Your task to perform on an android device: allow cookies in the chrome app Image 0: 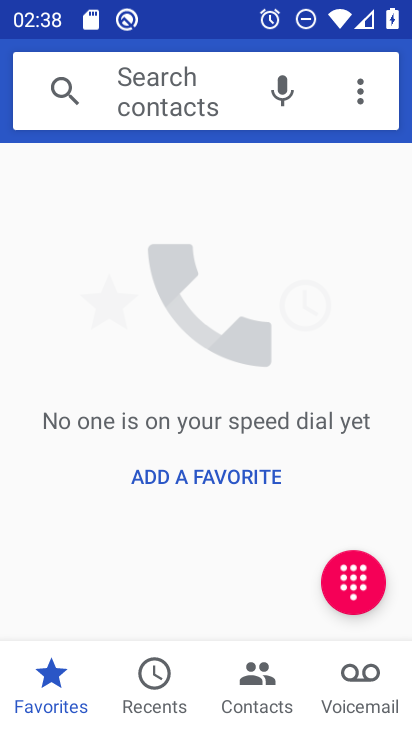
Step 0: press home button
Your task to perform on an android device: allow cookies in the chrome app Image 1: 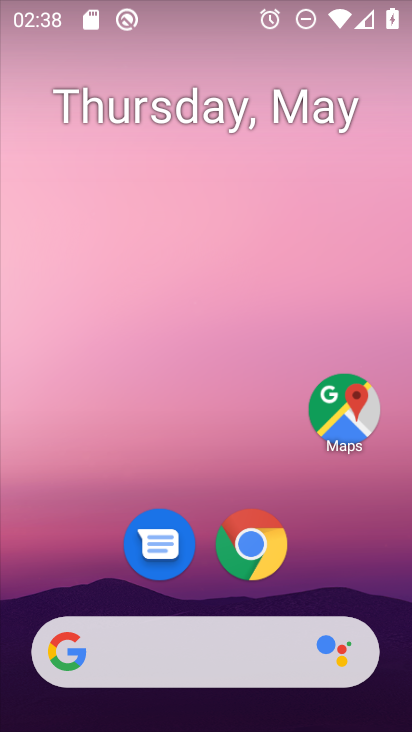
Step 1: drag from (394, 557) to (370, 130)
Your task to perform on an android device: allow cookies in the chrome app Image 2: 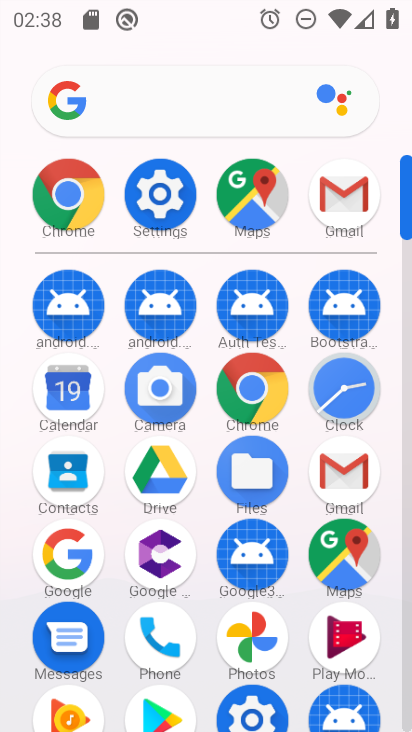
Step 2: click (269, 397)
Your task to perform on an android device: allow cookies in the chrome app Image 3: 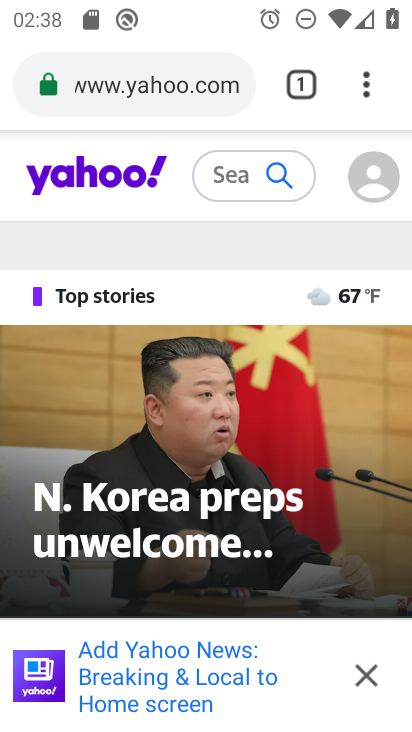
Step 3: click (366, 100)
Your task to perform on an android device: allow cookies in the chrome app Image 4: 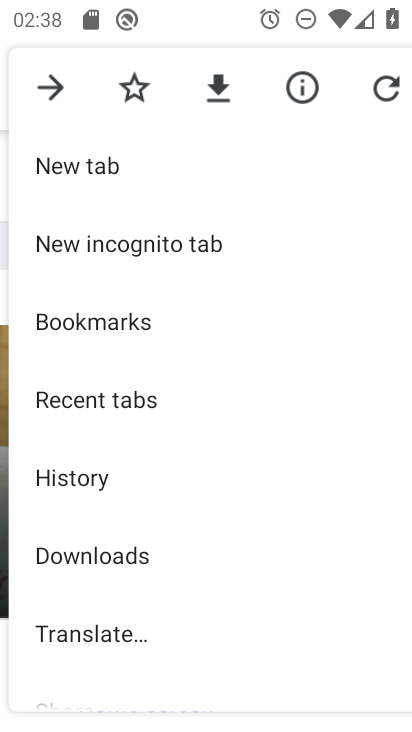
Step 4: drag from (294, 526) to (315, 390)
Your task to perform on an android device: allow cookies in the chrome app Image 5: 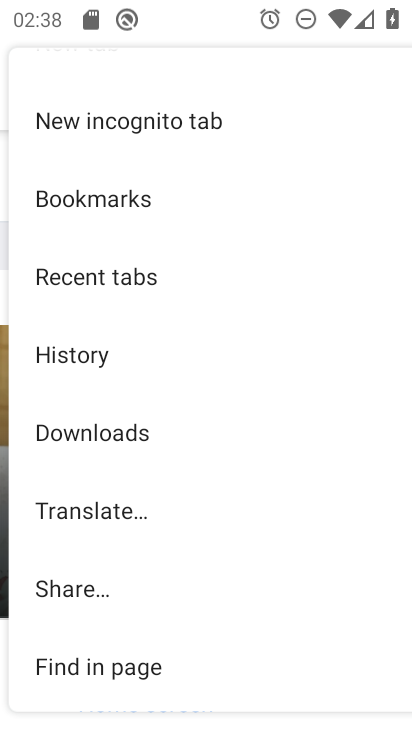
Step 5: drag from (314, 570) to (336, 469)
Your task to perform on an android device: allow cookies in the chrome app Image 6: 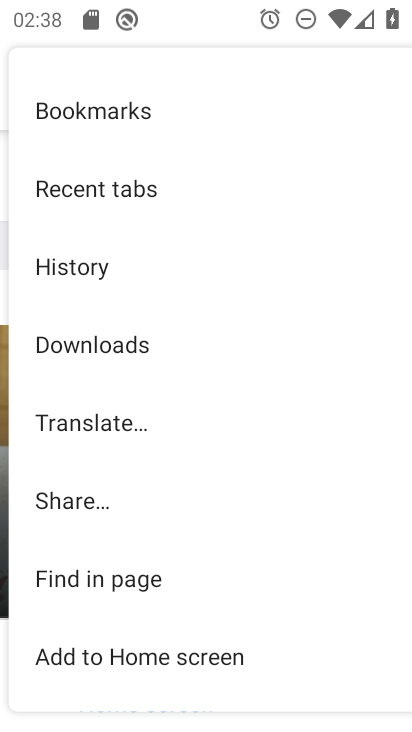
Step 6: drag from (326, 587) to (329, 500)
Your task to perform on an android device: allow cookies in the chrome app Image 7: 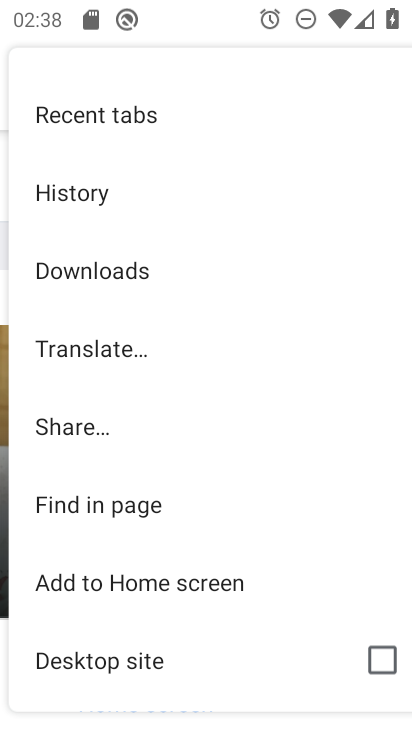
Step 7: drag from (318, 600) to (330, 517)
Your task to perform on an android device: allow cookies in the chrome app Image 8: 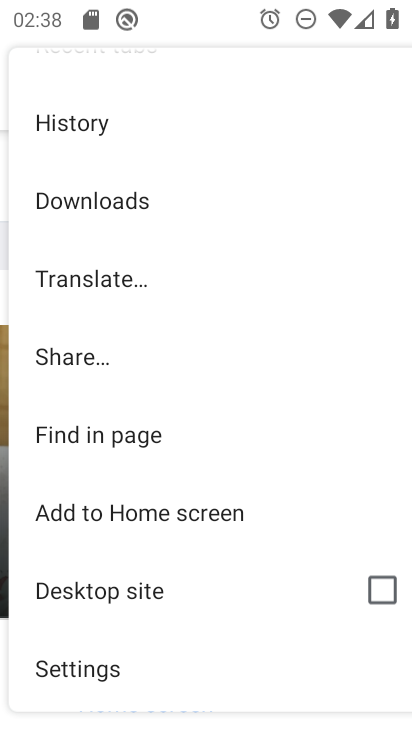
Step 8: drag from (326, 601) to (335, 521)
Your task to perform on an android device: allow cookies in the chrome app Image 9: 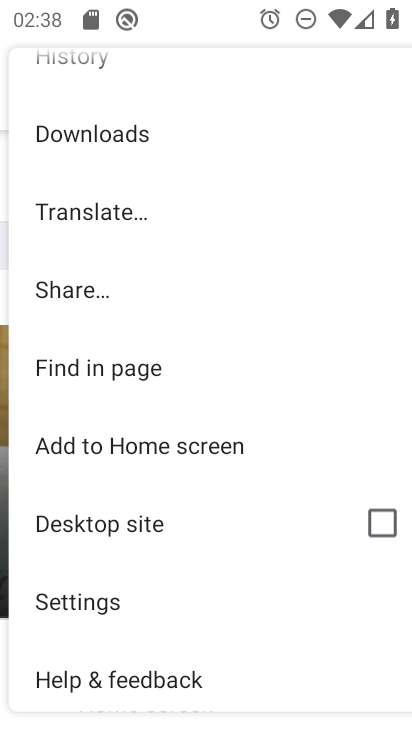
Step 9: drag from (333, 578) to (336, 534)
Your task to perform on an android device: allow cookies in the chrome app Image 10: 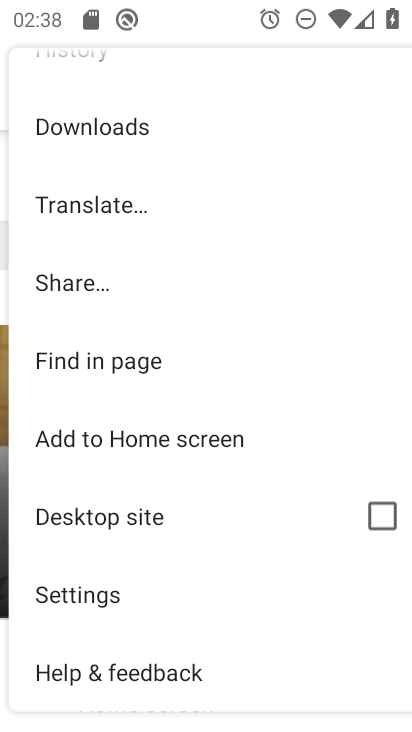
Step 10: drag from (334, 570) to (339, 502)
Your task to perform on an android device: allow cookies in the chrome app Image 11: 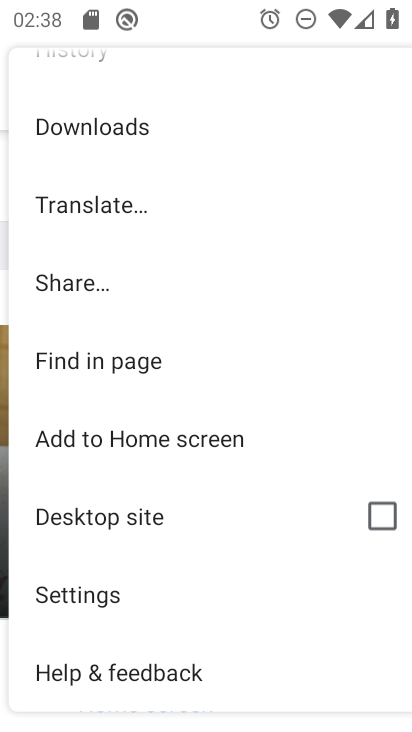
Step 11: drag from (338, 574) to (355, 539)
Your task to perform on an android device: allow cookies in the chrome app Image 12: 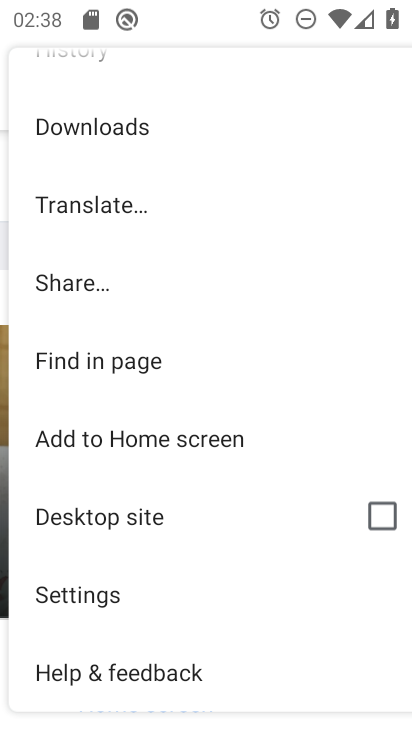
Step 12: drag from (314, 373) to (316, 449)
Your task to perform on an android device: allow cookies in the chrome app Image 13: 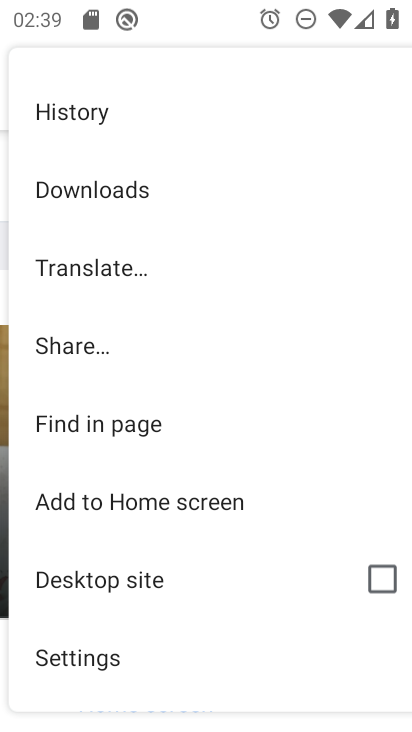
Step 13: click (320, 445)
Your task to perform on an android device: allow cookies in the chrome app Image 14: 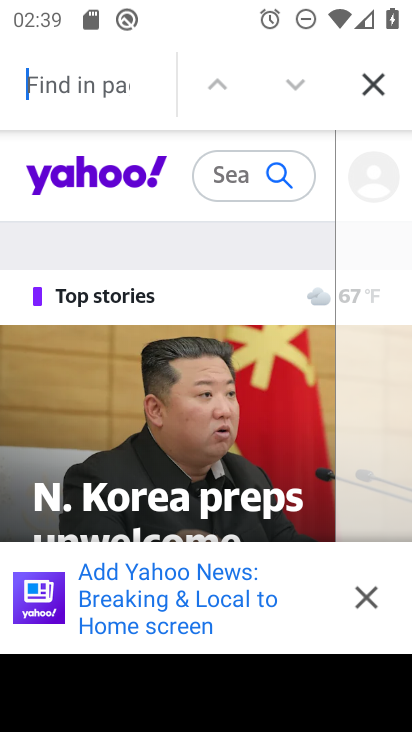
Step 14: click (360, 98)
Your task to perform on an android device: allow cookies in the chrome app Image 15: 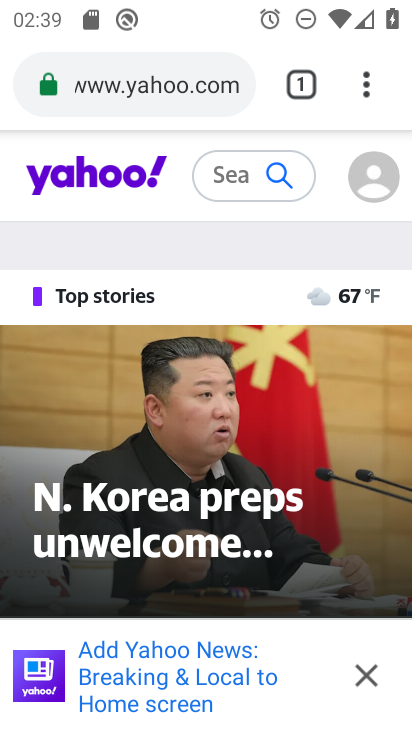
Step 15: click (370, 94)
Your task to perform on an android device: allow cookies in the chrome app Image 16: 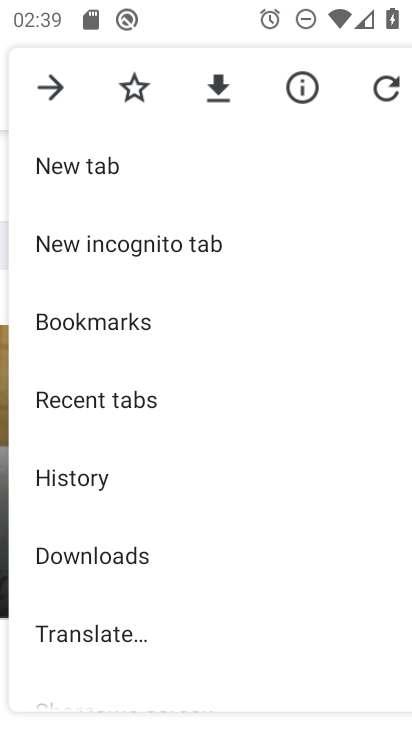
Step 16: drag from (315, 560) to (319, 437)
Your task to perform on an android device: allow cookies in the chrome app Image 17: 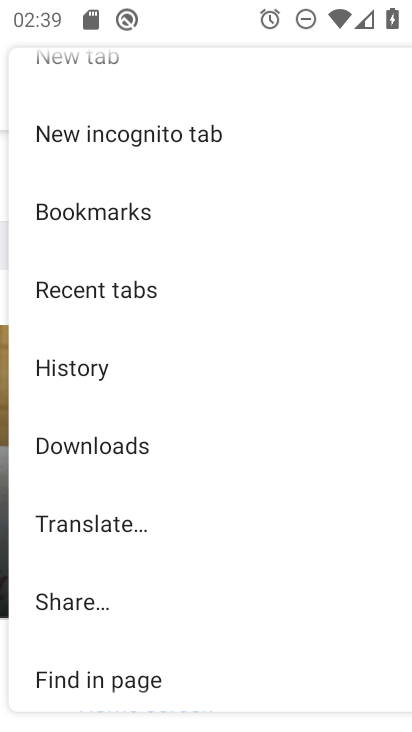
Step 17: drag from (278, 608) to (297, 478)
Your task to perform on an android device: allow cookies in the chrome app Image 18: 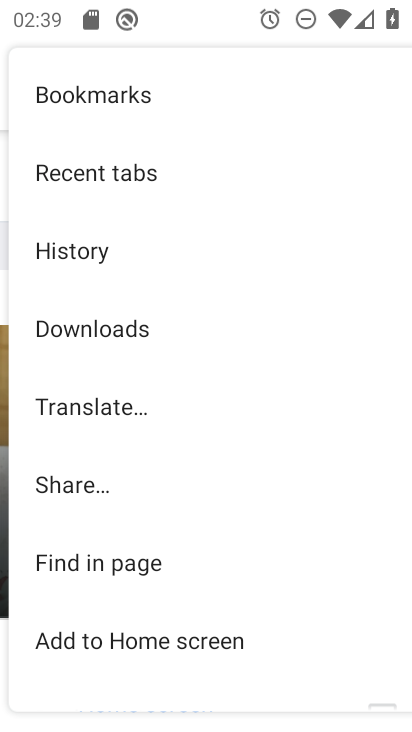
Step 18: drag from (294, 619) to (310, 515)
Your task to perform on an android device: allow cookies in the chrome app Image 19: 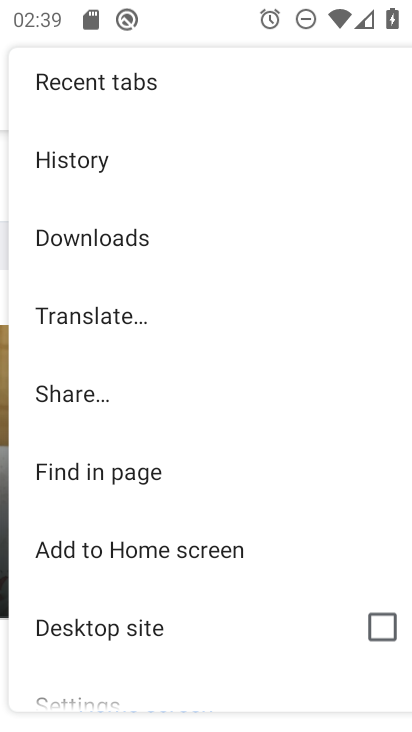
Step 19: drag from (271, 607) to (285, 486)
Your task to perform on an android device: allow cookies in the chrome app Image 20: 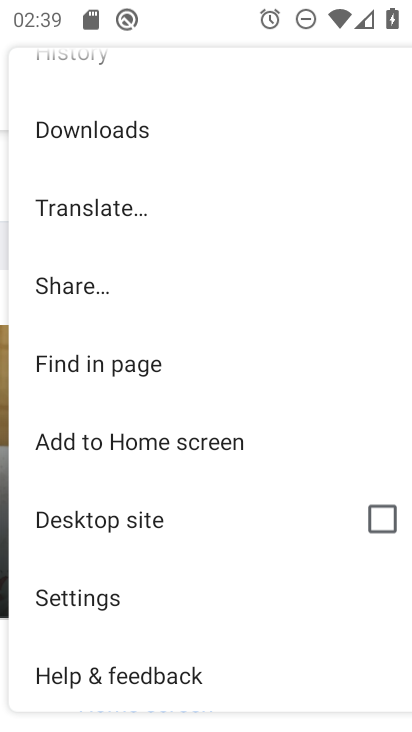
Step 20: click (122, 609)
Your task to perform on an android device: allow cookies in the chrome app Image 21: 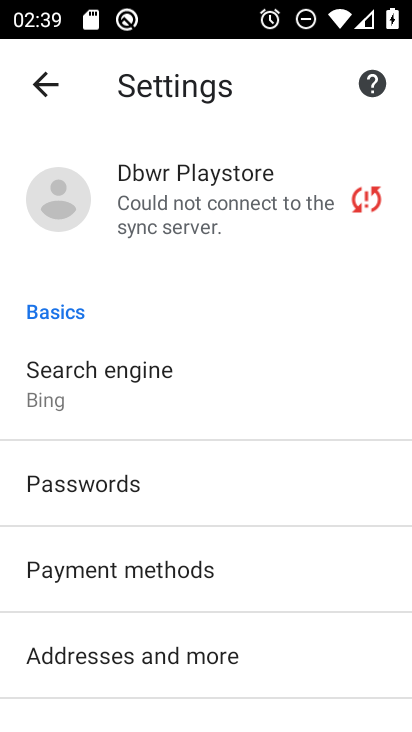
Step 21: drag from (322, 674) to (318, 571)
Your task to perform on an android device: allow cookies in the chrome app Image 22: 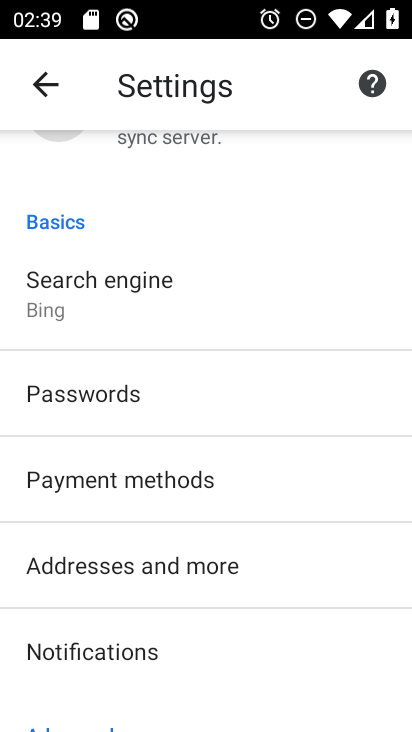
Step 22: drag from (312, 662) to (319, 521)
Your task to perform on an android device: allow cookies in the chrome app Image 23: 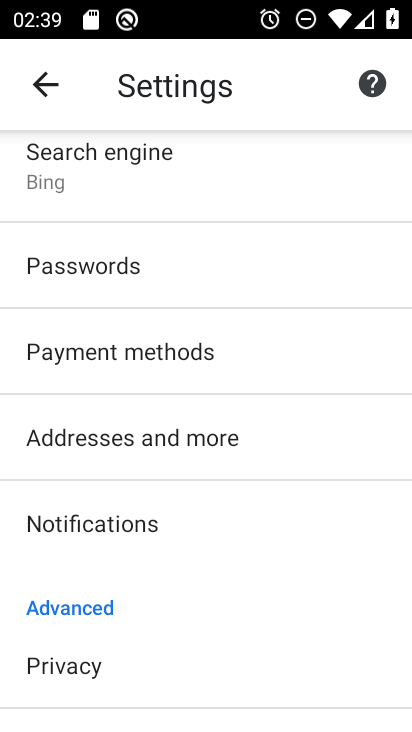
Step 23: drag from (319, 678) to (316, 525)
Your task to perform on an android device: allow cookies in the chrome app Image 24: 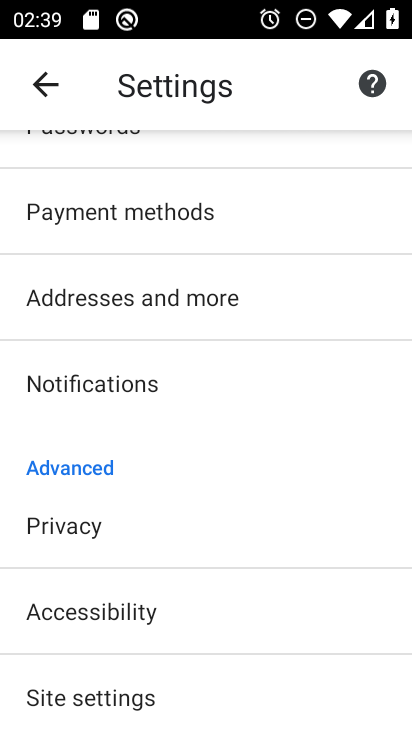
Step 24: drag from (319, 642) to (332, 492)
Your task to perform on an android device: allow cookies in the chrome app Image 25: 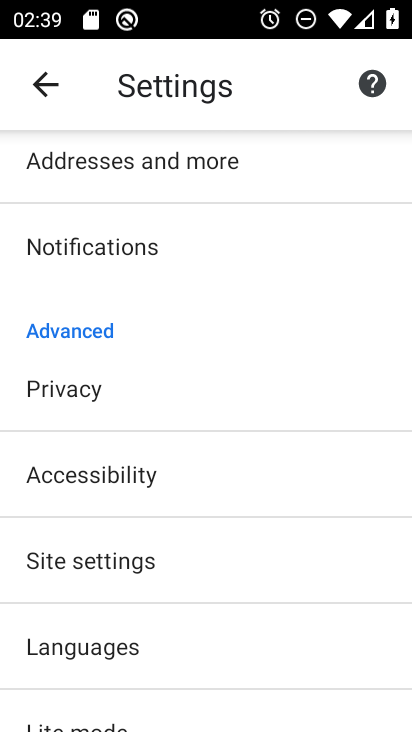
Step 25: drag from (340, 640) to (346, 582)
Your task to perform on an android device: allow cookies in the chrome app Image 26: 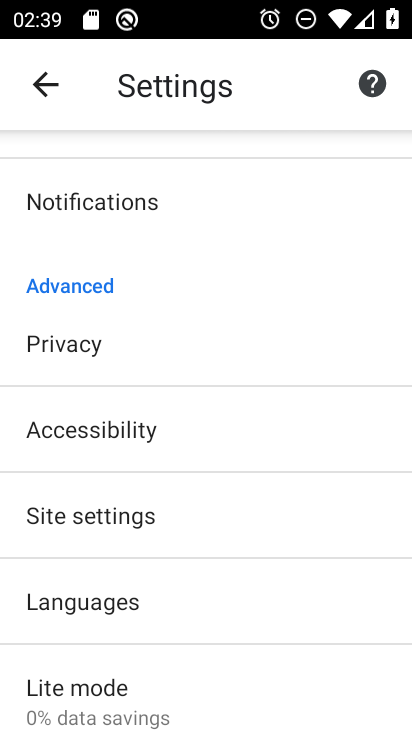
Step 26: click (363, 542)
Your task to perform on an android device: allow cookies in the chrome app Image 27: 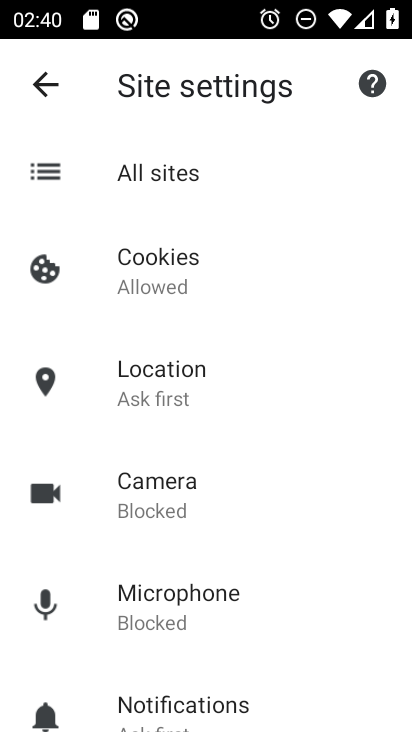
Step 27: click (210, 282)
Your task to perform on an android device: allow cookies in the chrome app Image 28: 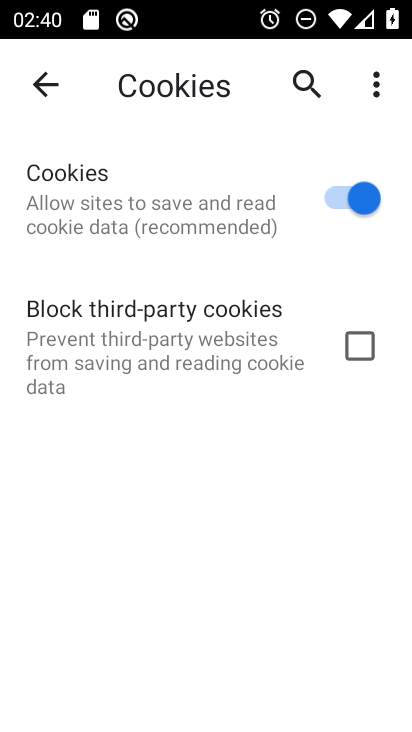
Step 28: task complete